Your task to perform on an android device: change timer sound Image 0: 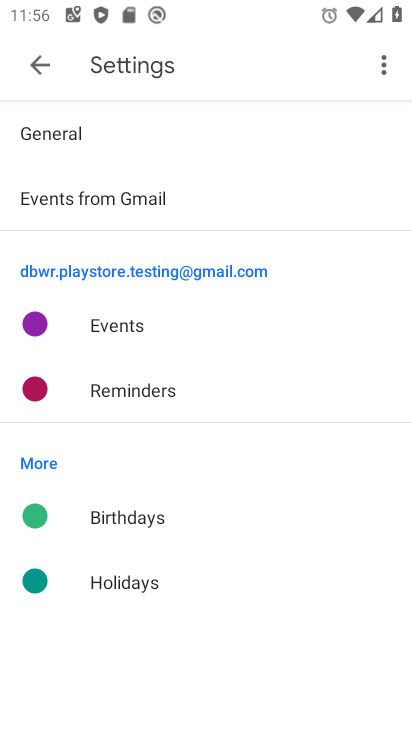
Step 0: press home button
Your task to perform on an android device: change timer sound Image 1: 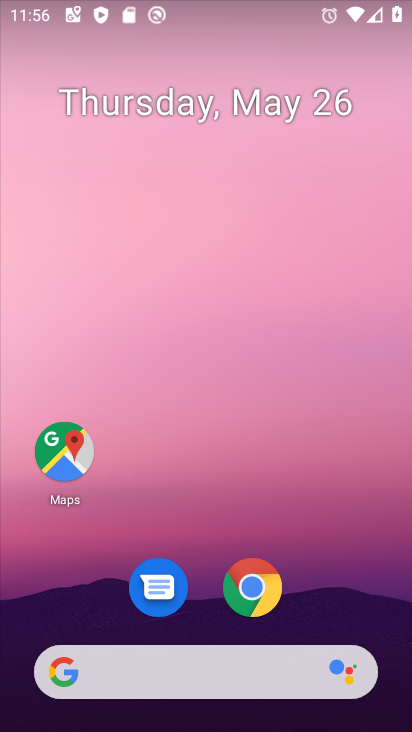
Step 1: drag from (205, 705) to (259, 34)
Your task to perform on an android device: change timer sound Image 2: 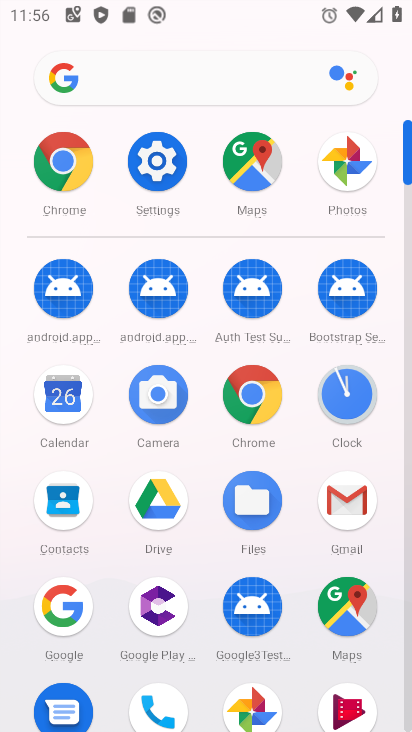
Step 2: click (352, 404)
Your task to perform on an android device: change timer sound Image 3: 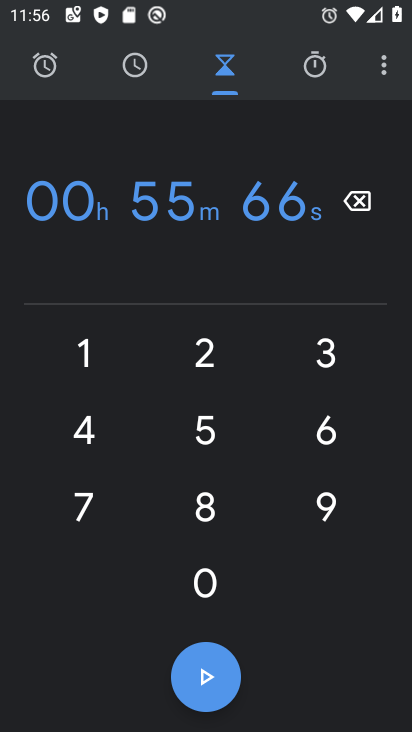
Step 3: click (369, 76)
Your task to perform on an android device: change timer sound Image 4: 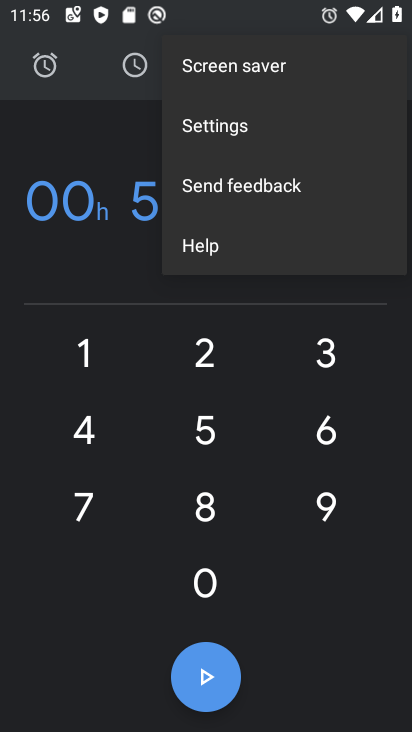
Step 4: click (225, 130)
Your task to perform on an android device: change timer sound Image 5: 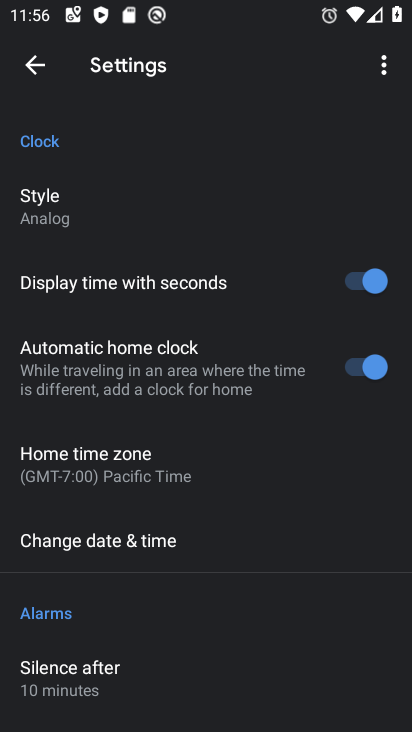
Step 5: drag from (173, 582) to (244, 120)
Your task to perform on an android device: change timer sound Image 6: 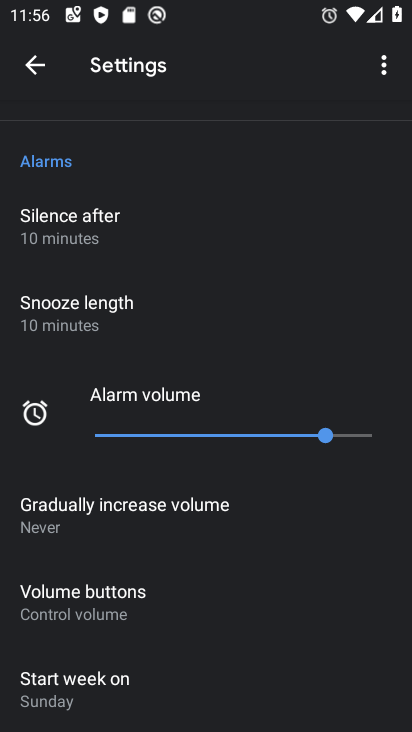
Step 6: drag from (139, 568) to (225, 209)
Your task to perform on an android device: change timer sound Image 7: 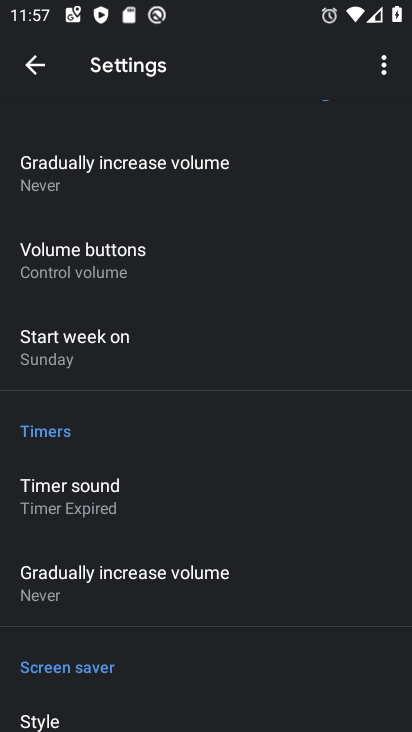
Step 7: click (120, 506)
Your task to perform on an android device: change timer sound Image 8: 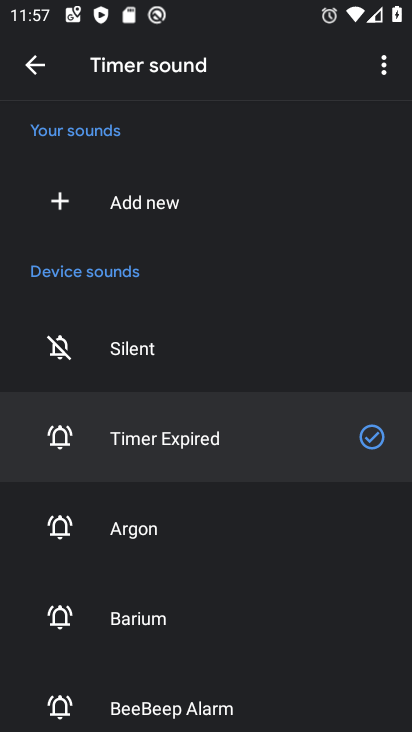
Step 8: click (118, 566)
Your task to perform on an android device: change timer sound Image 9: 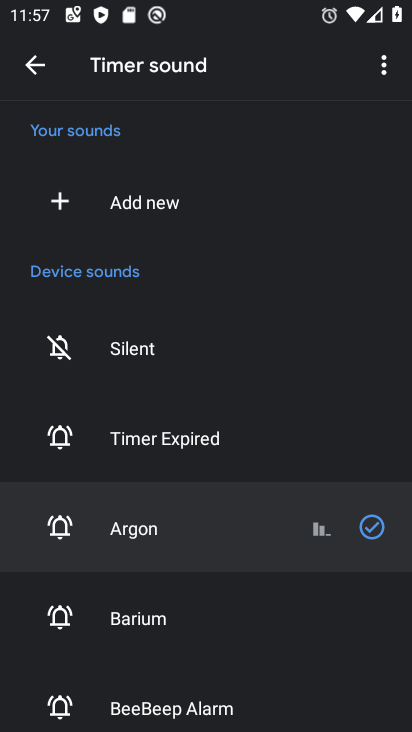
Step 9: task complete